Your task to perform on an android device: Open calendar and show me the fourth week of next month Image 0: 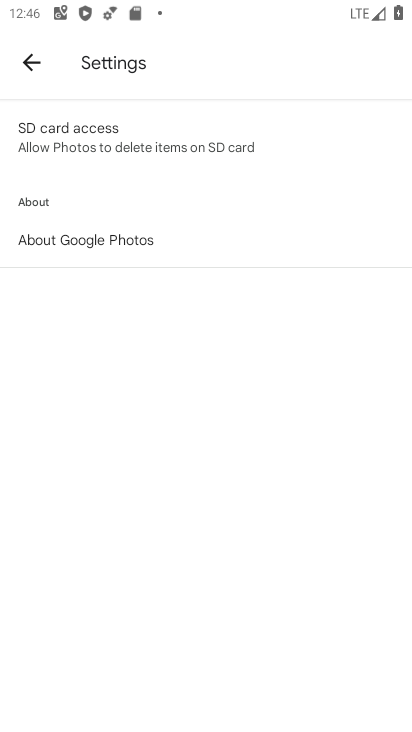
Step 0: press home button
Your task to perform on an android device: Open calendar and show me the fourth week of next month Image 1: 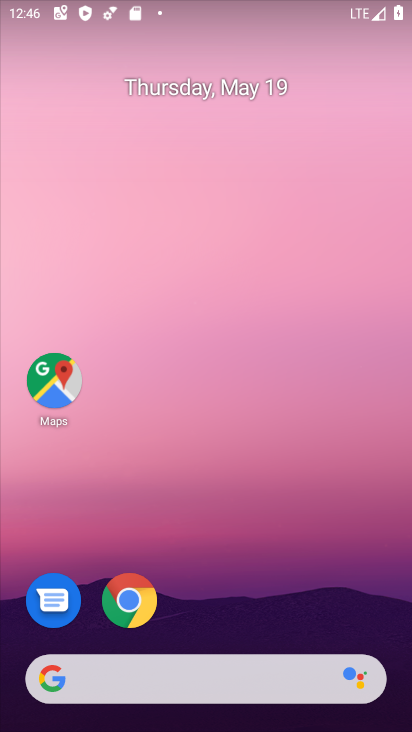
Step 1: drag from (237, 534) to (226, 105)
Your task to perform on an android device: Open calendar and show me the fourth week of next month Image 2: 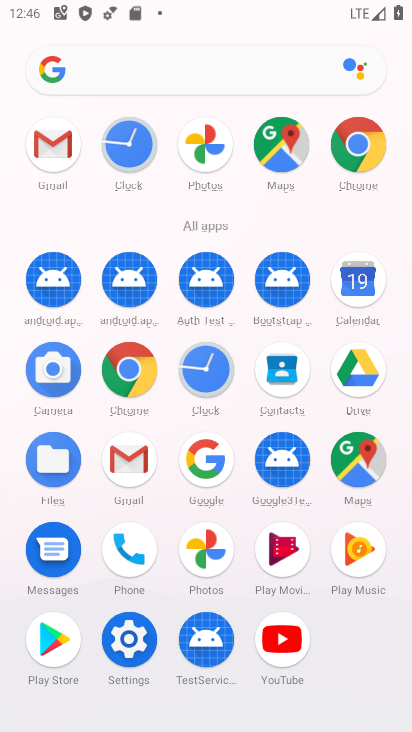
Step 2: click (354, 290)
Your task to perform on an android device: Open calendar and show me the fourth week of next month Image 3: 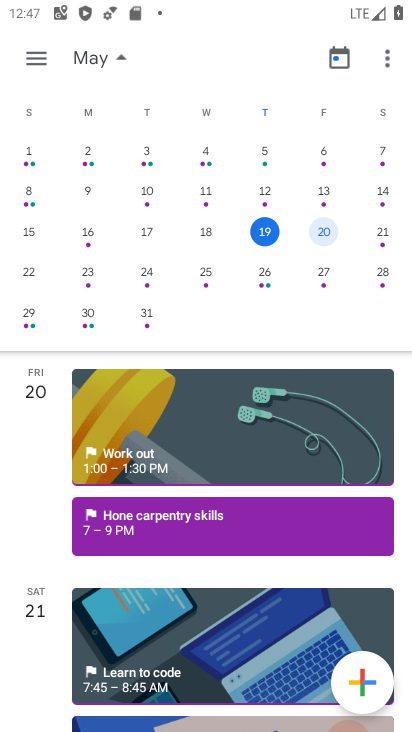
Step 3: drag from (341, 159) to (4, 180)
Your task to perform on an android device: Open calendar and show me the fourth week of next month Image 4: 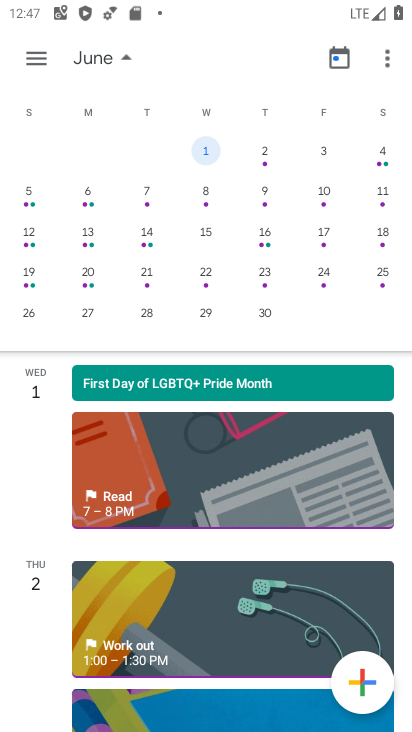
Step 4: click (214, 275)
Your task to perform on an android device: Open calendar and show me the fourth week of next month Image 5: 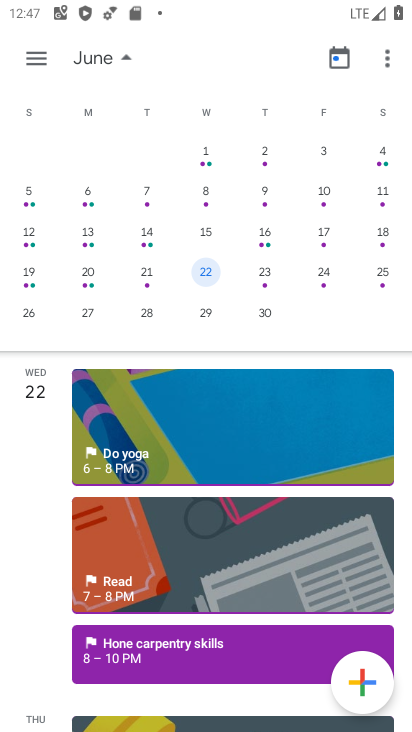
Step 5: click (30, 58)
Your task to perform on an android device: Open calendar and show me the fourth week of next month Image 6: 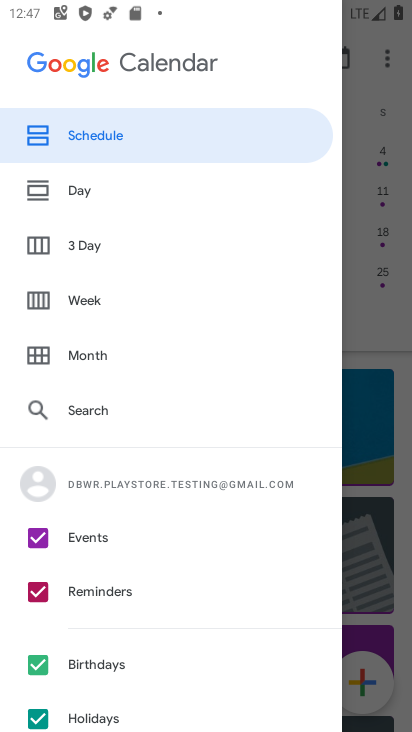
Step 6: click (73, 298)
Your task to perform on an android device: Open calendar and show me the fourth week of next month Image 7: 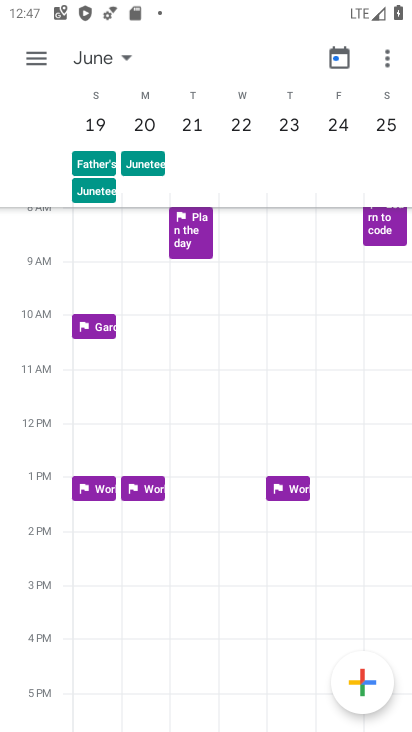
Step 7: task complete